Your task to perform on an android device: Open my contact list Image 0: 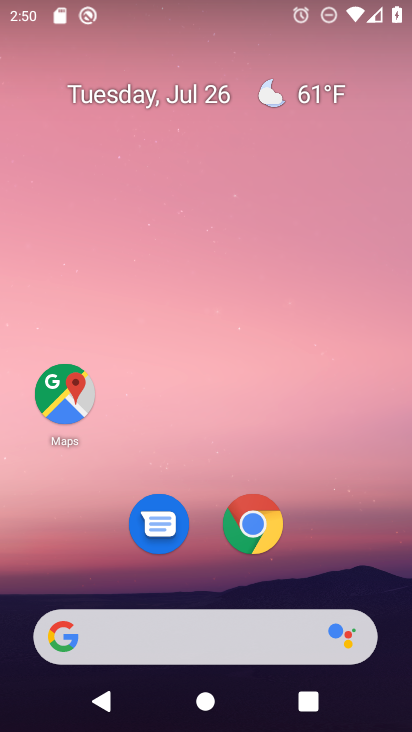
Step 0: press home button
Your task to perform on an android device: Open my contact list Image 1: 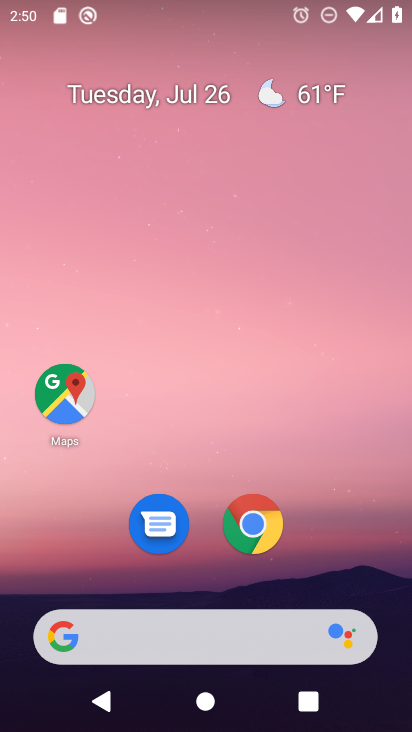
Step 1: drag from (187, 621) to (336, 17)
Your task to perform on an android device: Open my contact list Image 2: 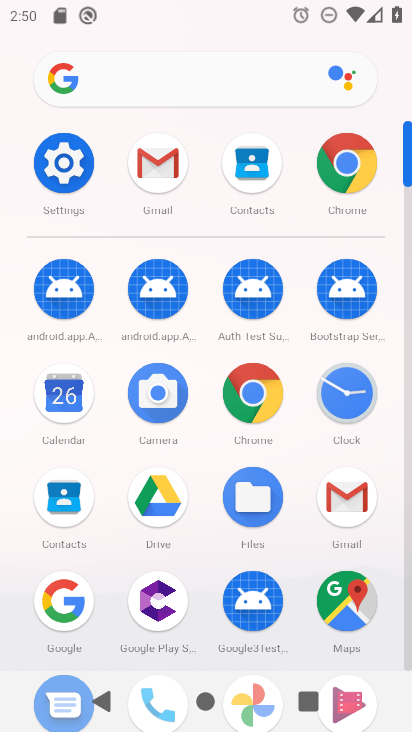
Step 2: click (68, 508)
Your task to perform on an android device: Open my contact list Image 3: 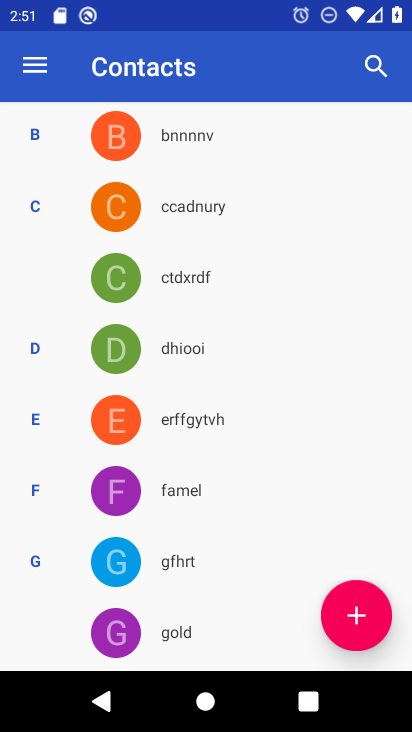
Step 3: task complete